Your task to perform on an android device: change keyboard looks Image 0: 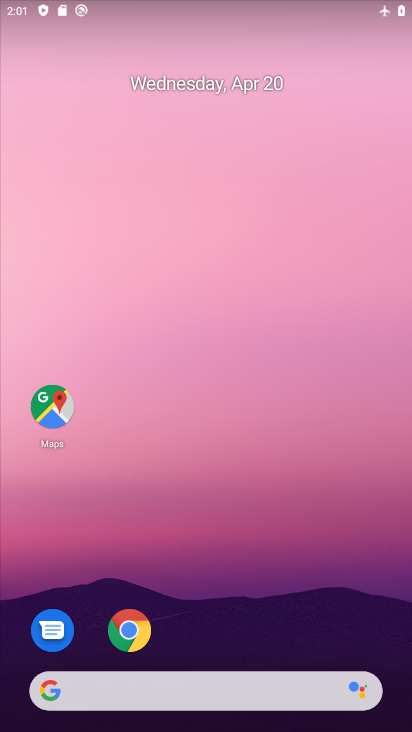
Step 0: drag from (295, 570) to (235, 256)
Your task to perform on an android device: change keyboard looks Image 1: 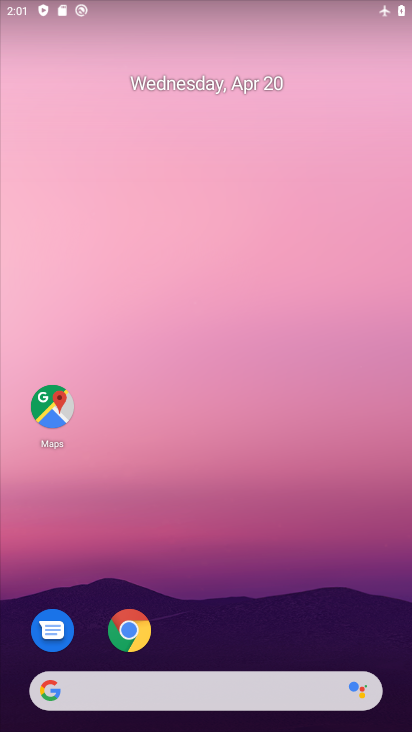
Step 1: click (272, 290)
Your task to perform on an android device: change keyboard looks Image 2: 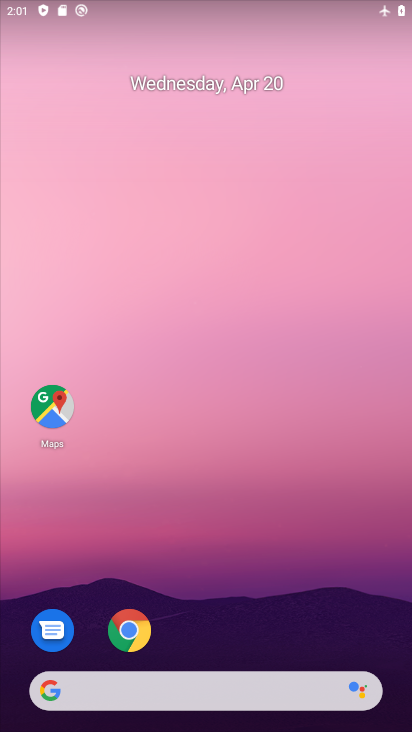
Step 2: drag from (260, 573) to (236, 149)
Your task to perform on an android device: change keyboard looks Image 3: 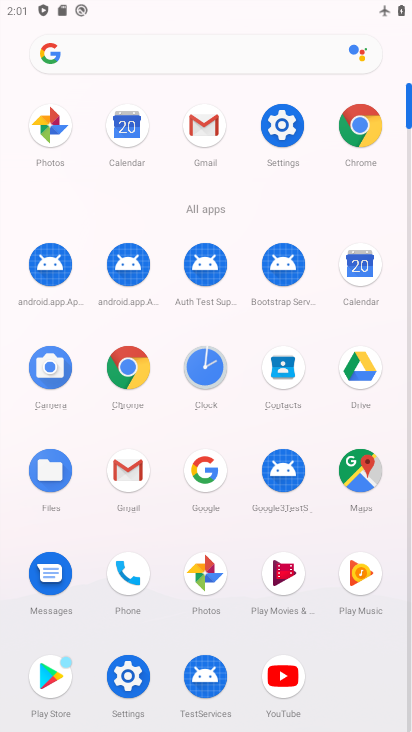
Step 3: click (285, 139)
Your task to perform on an android device: change keyboard looks Image 4: 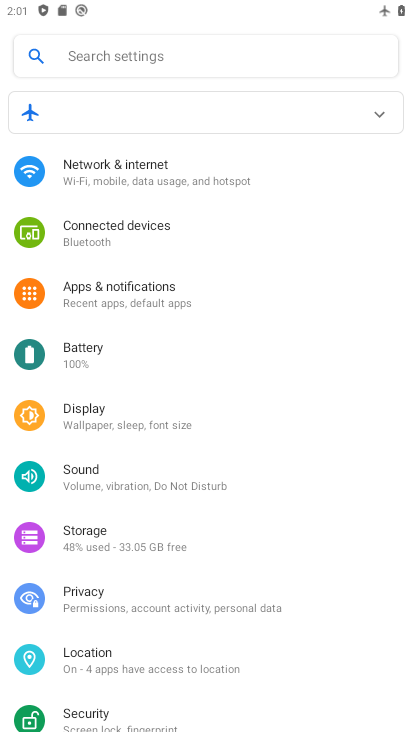
Step 4: drag from (223, 659) to (307, 31)
Your task to perform on an android device: change keyboard looks Image 5: 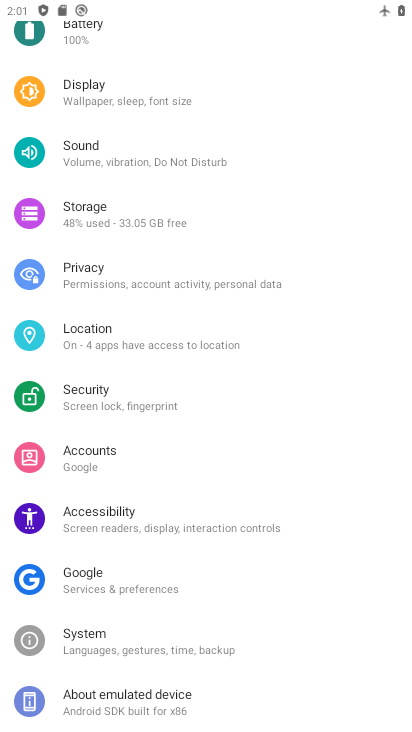
Step 5: click (298, 634)
Your task to perform on an android device: change keyboard looks Image 6: 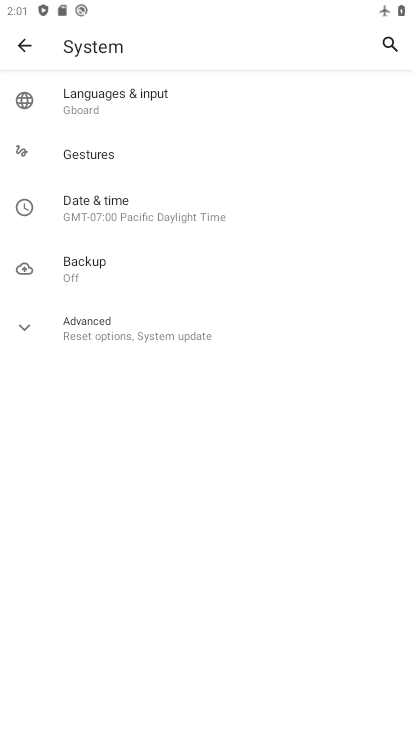
Step 6: click (198, 106)
Your task to perform on an android device: change keyboard looks Image 7: 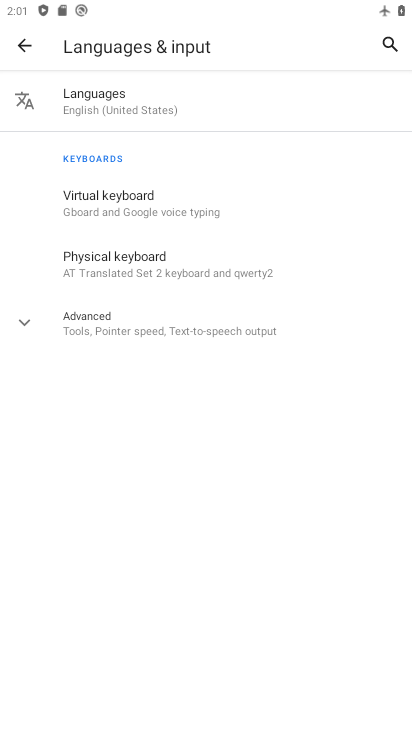
Step 7: click (188, 207)
Your task to perform on an android device: change keyboard looks Image 8: 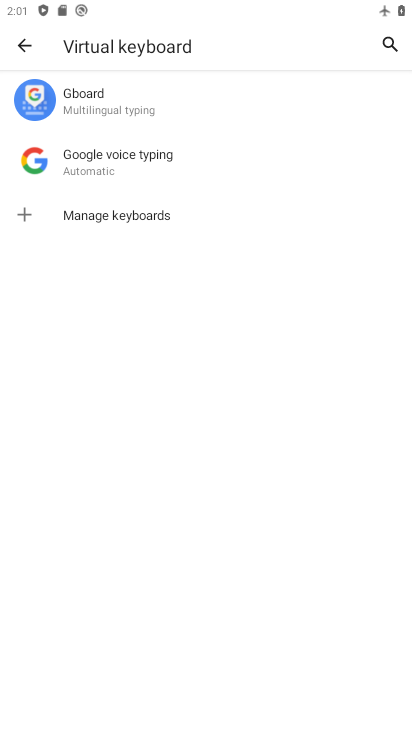
Step 8: click (167, 117)
Your task to perform on an android device: change keyboard looks Image 9: 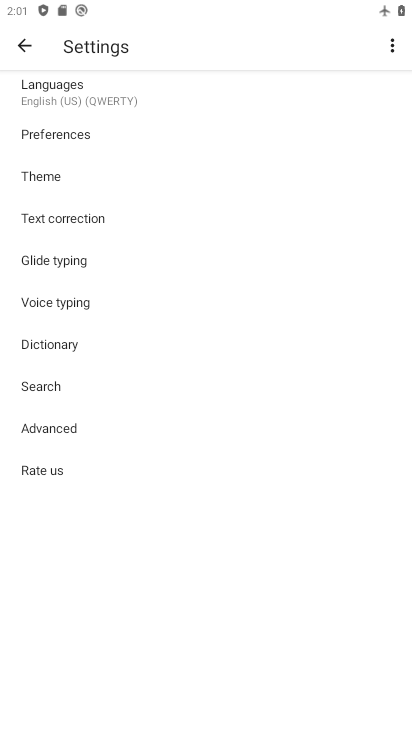
Step 9: click (96, 173)
Your task to perform on an android device: change keyboard looks Image 10: 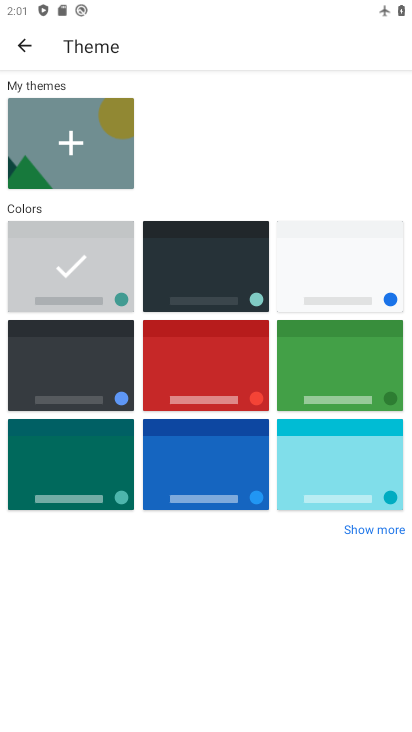
Step 10: click (192, 287)
Your task to perform on an android device: change keyboard looks Image 11: 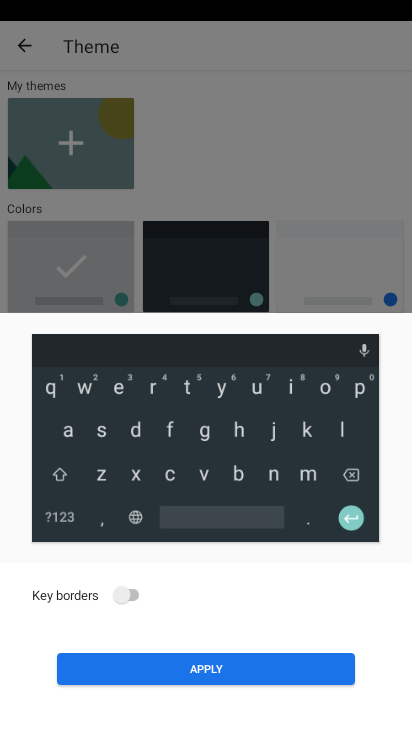
Step 11: click (302, 669)
Your task to perform on an android device: change keyboard looks Image 12: 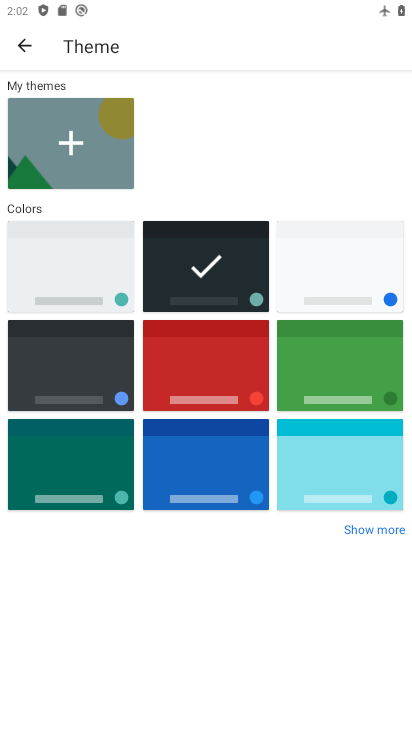
Step 12: task complete